Your task to perform on an android device: open a bookmark in the chrome app Image 0: 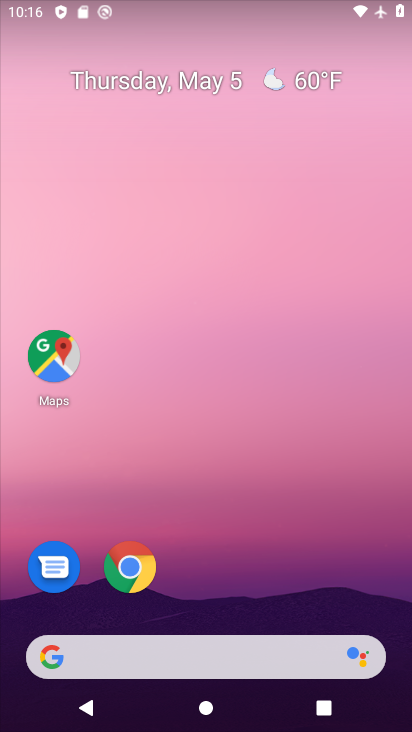
Step 0: click (142, 560)
Your task to perform on an android device: open a bookmark in the chrome app Image 1: 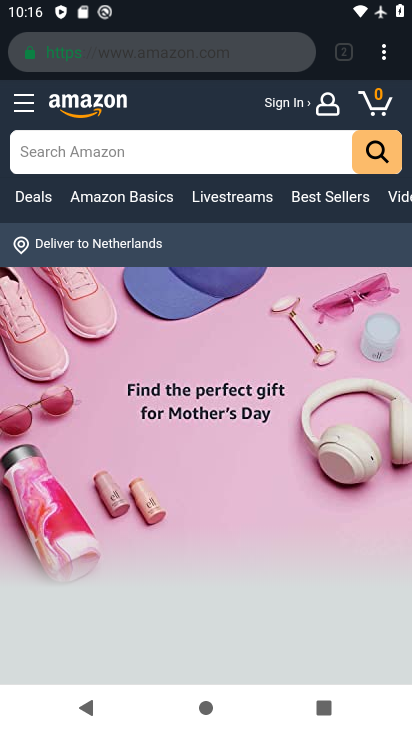
Step 1: drag from (386, 56) to (178, 202)
Your task to perform on an android device: open a bookmark in the chrome app Image 2: 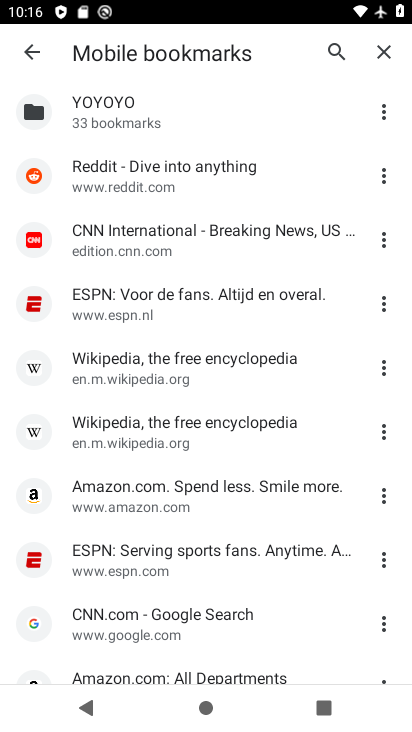
Step 2: click (111, 310)
Your task to perform on an android device: open a bookmark in the chrome app Image 3: 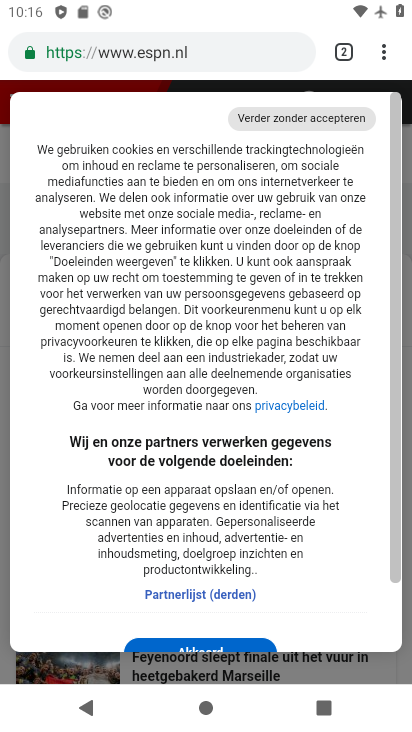
Step 3: task complete